Your task to perform on an android device: search for starred emails in the gmail app Image 0: 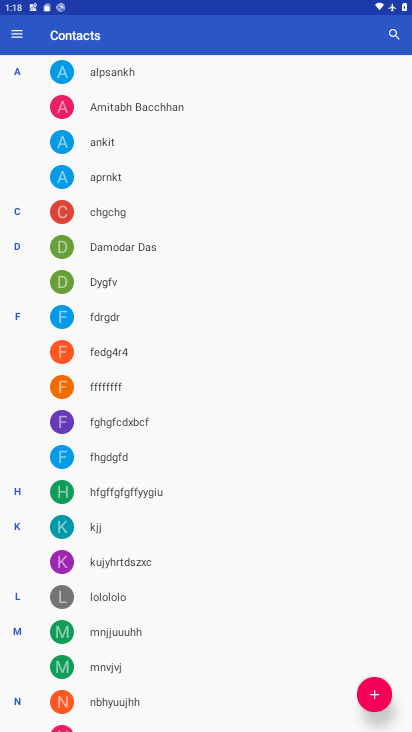
Step 0: press home button
Your task to perform on an android device: search for starred emails in the gmail app Image 1: 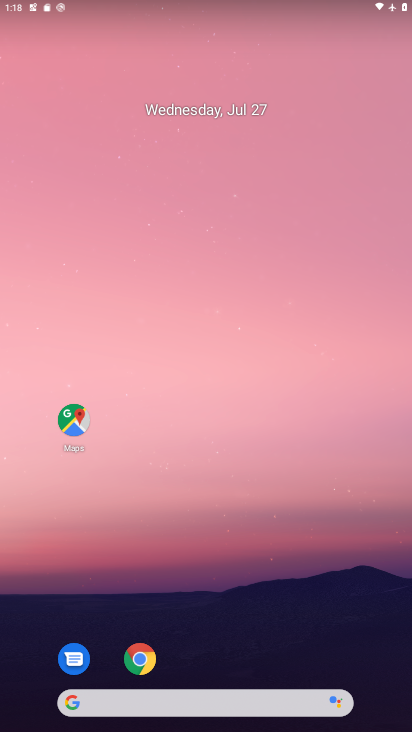
Step 1: drag from (251, 414) to (266, 200)
Your task to perform on an android device: search for starred emails in the gmail app Image 2: 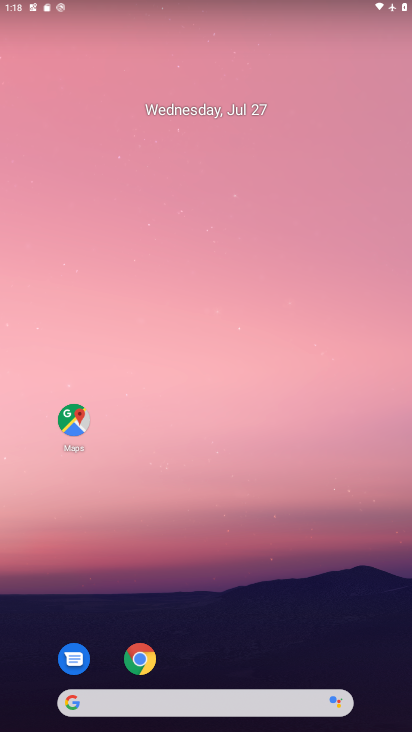
Step 2: drag from (265, 613) to (264, 177)
Your task to perform on an android device: search for starred emails in the gmail app Image 3: 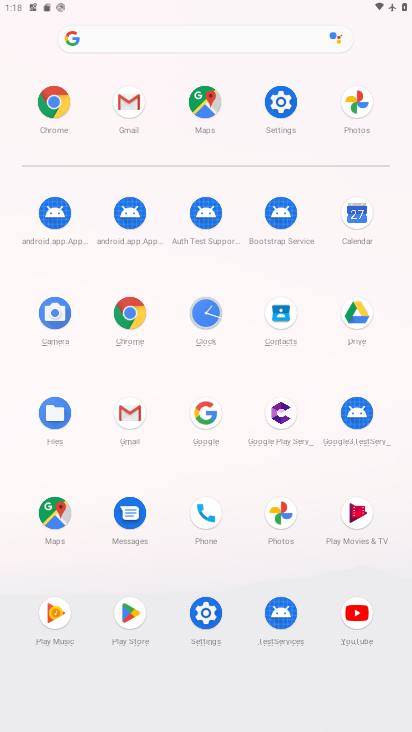
Step 3: click (128, 411)
Your task to perform on an android device: search for starred emails in the gmail app Image 4: 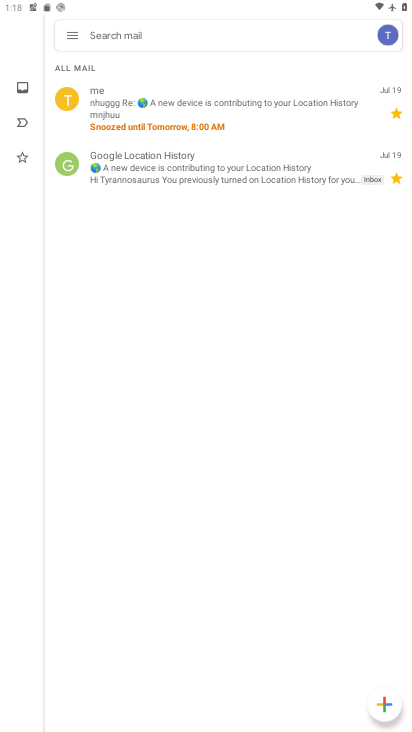
Step 4: click (79, 43)
Your task to perform on an android device: search for starred emails in the gmail app Image 5: 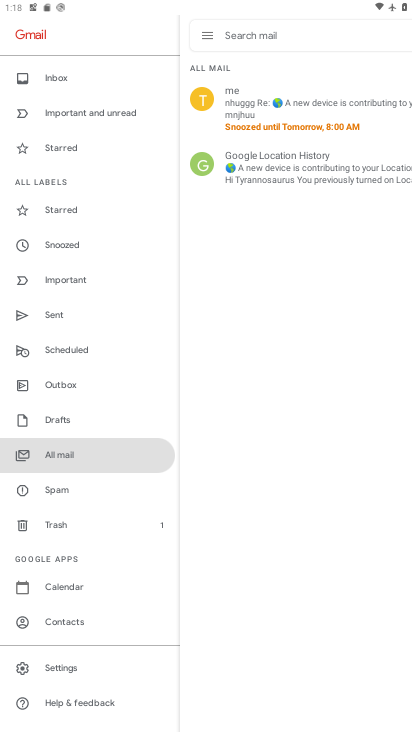
Step 5: click (84, 211)
Your task to perform on an android device: search for starred emails in the gmail app Image 6: 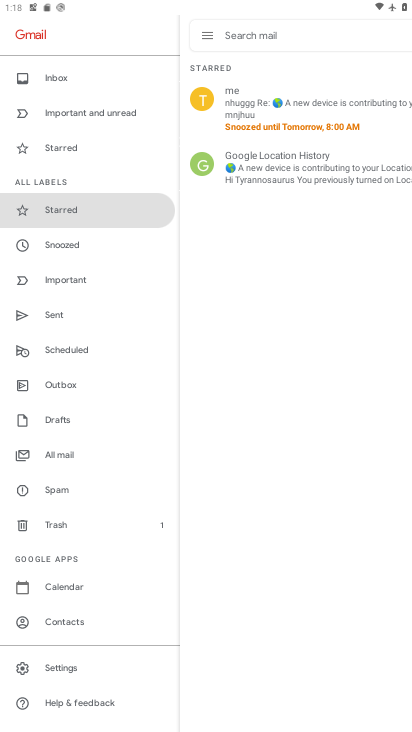
Step 6: task complete